Your task to perform on an android device: create a new album in the google photos Image 0: 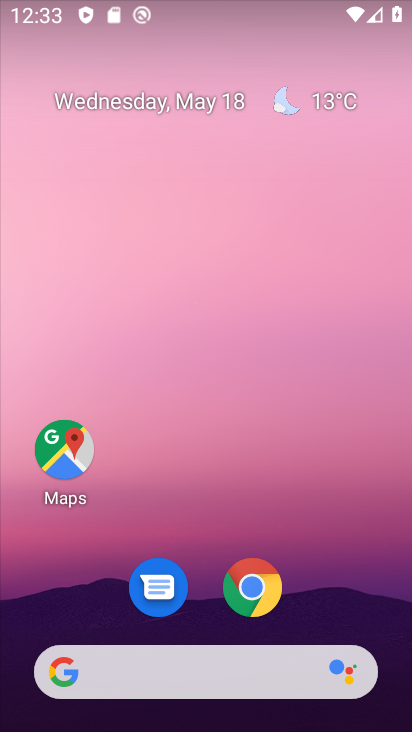
Step 0: drag from (220, 610) to (289, 42)
Your task to perform on an android device: create a new album in the google photos Image 1: 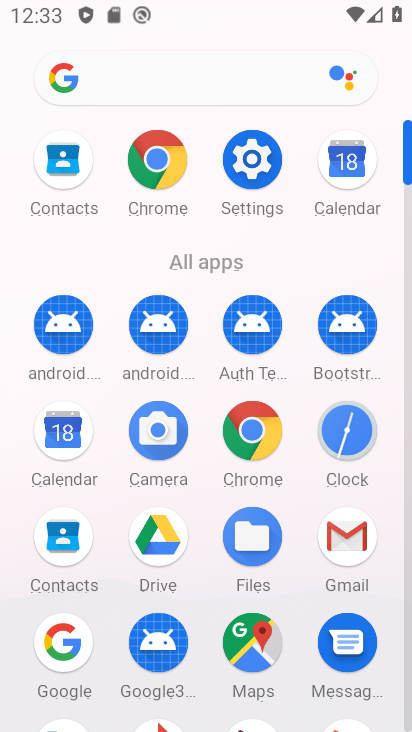
Step 1: drag from (224, 628) to (315, 178)
Your task to perform on an android device: create a new album in the google photos Image 2: 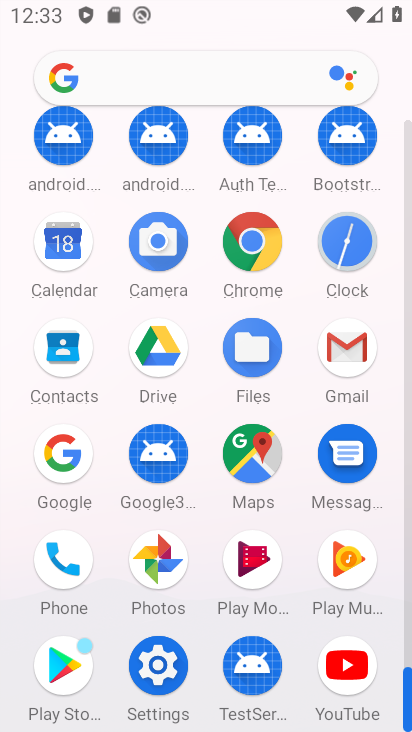
Step 2: click (145, 562)
Your task to perform on an android device: create a new album in the google photos Image 3: 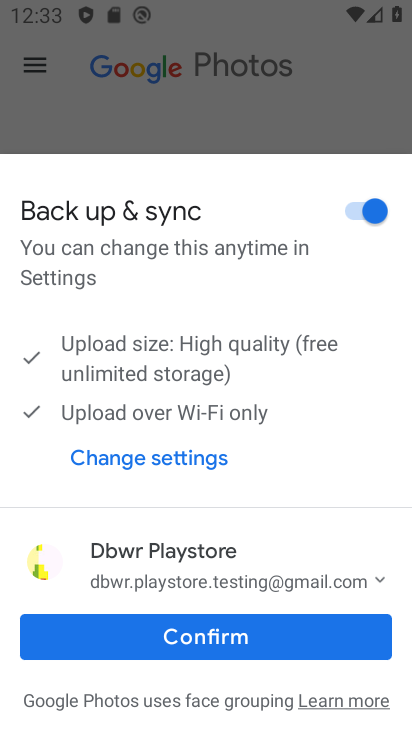
Step 3: click (167, 632)
Your task to perform on an android device: create a new album in the google photos Image 4: 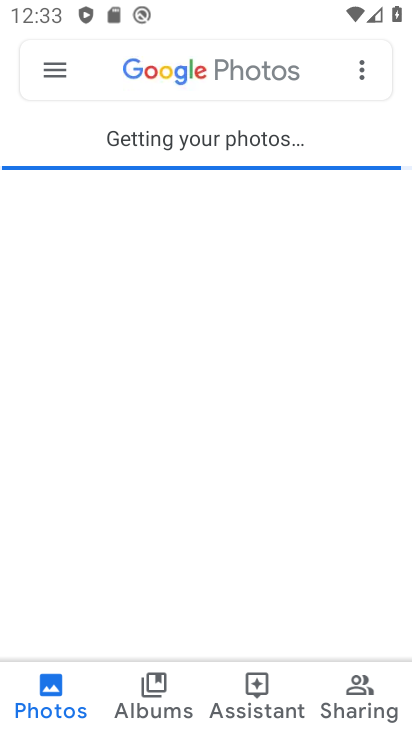
Step 4: drag from (360, 65) to (323, 88)
Your task to perform on an android device: create a new album in the google photos Image 5: 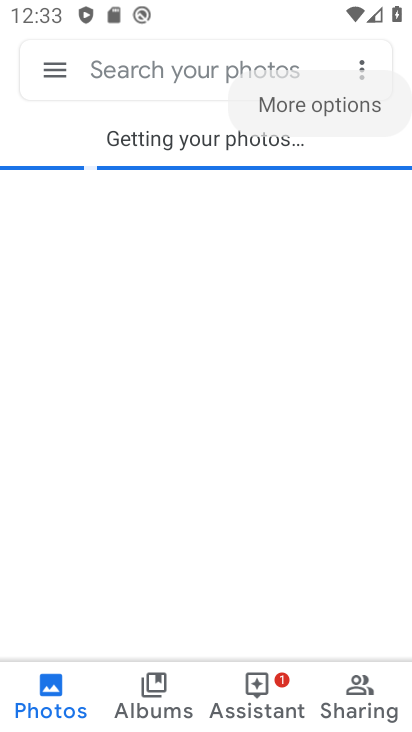
Step 5: click (308, 317)
Your task to perform on an android device: create a new album in the google photos Image 6: 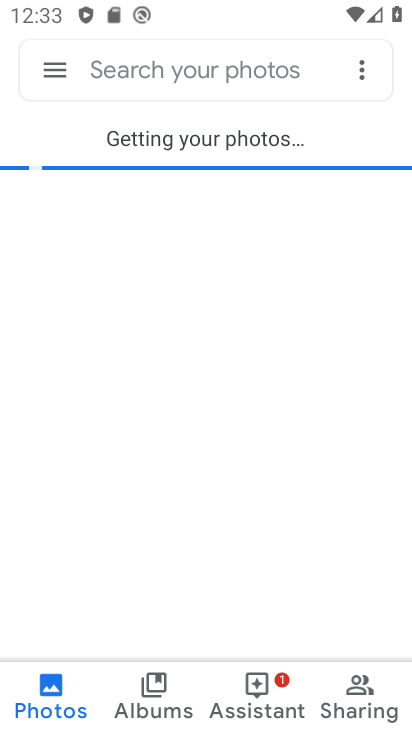
Step 6: click (352, 65)
Your task to perform on an android device: create a new album in the google photos Image 7: 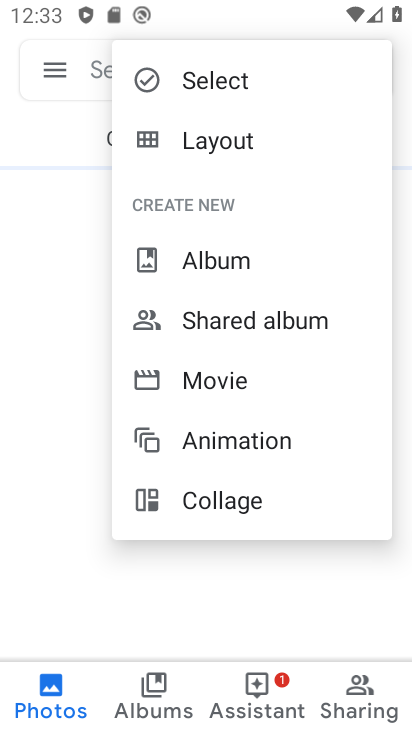
Step 7: click (202, 280)
Your task to perform on an android device: create a new album in the google photos Image 8: 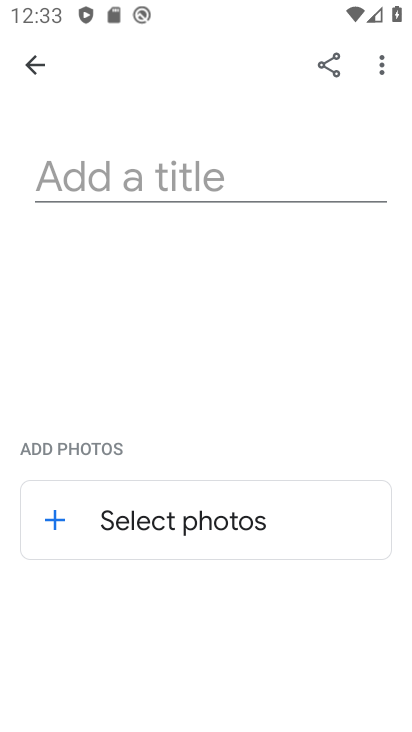
Step 8: click (134, 182)
Your task to perform on an android device: create a new album in the google photos Image 9: 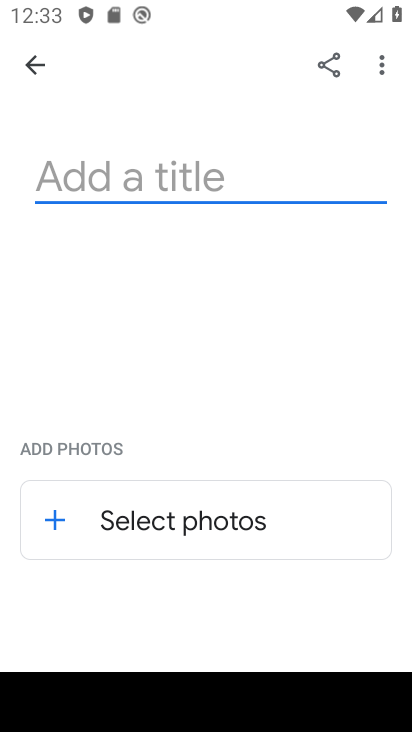
Step 9: type "fvffb"
Your task to perform on an android device: create a new album in the google photos Image 10: 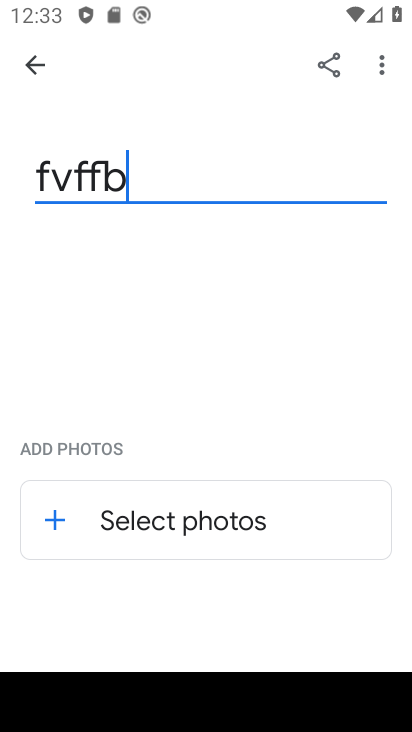
Step 10: click (180, 518)
Your task to perform on an android device: create a new album in the google photos Image 11: 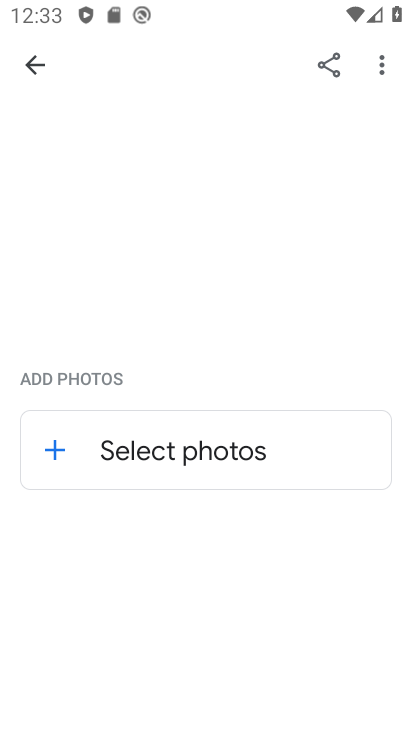
Step 11: click (155, 436)
Your task to perform on an android device: create a new album in the google photos Image 12: 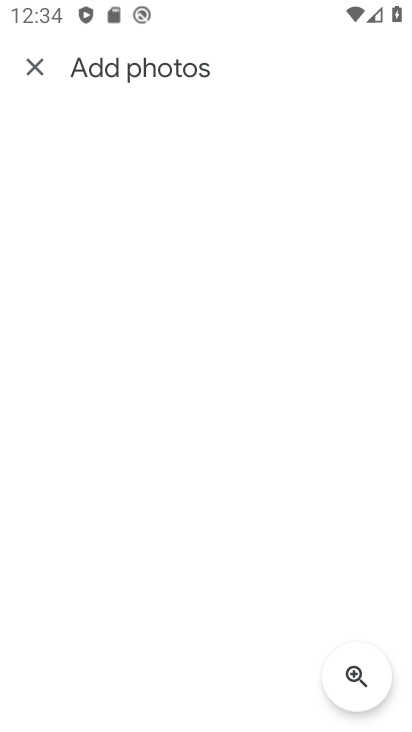
Step 12: drag from (100, 135) to (299, 85)
Your task to perform on an android device: create a new album in the google photos Image 13: 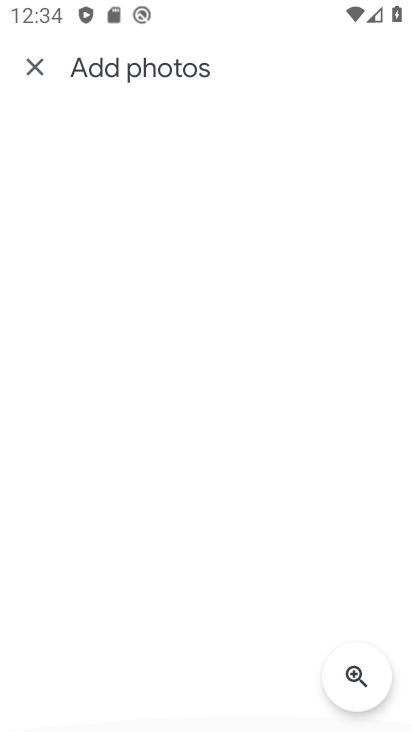
Step 13: click (48, 65)
Your task to perform on an android device: create a new album in the google photos Image 14: 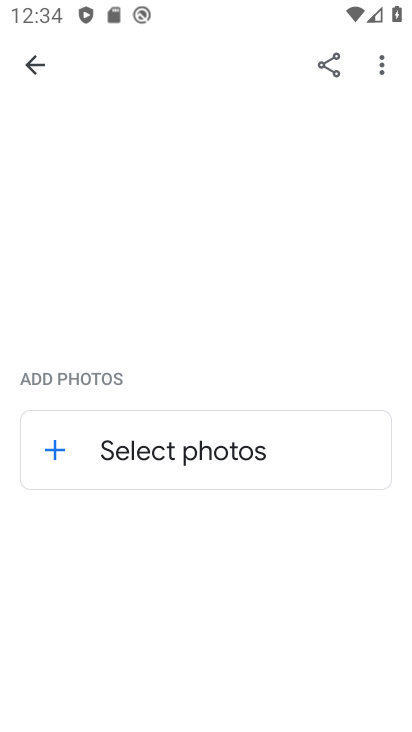
Step 14: click (152, 460)
Your task to perform on an android device: create a new album in the google photos Image 15: 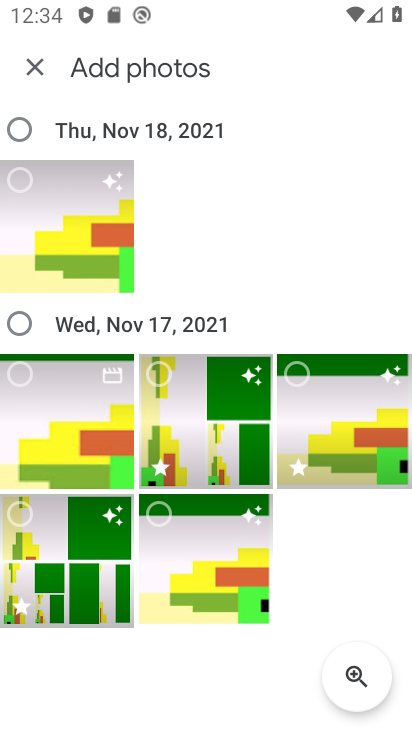
Step 15: click (26, 129)
Your task to perform on an android device: create a new album in the google photos Image 16: 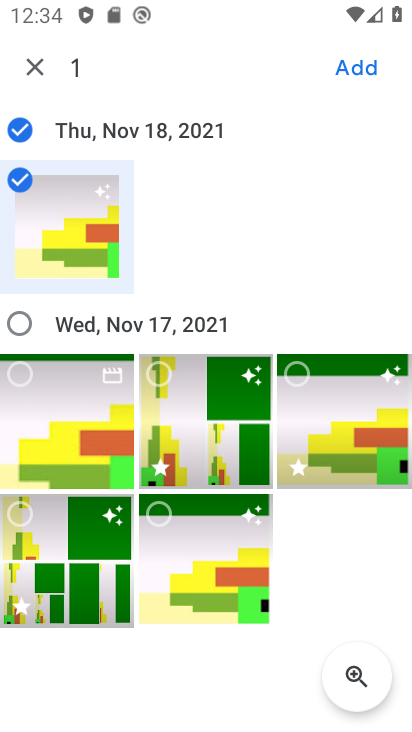
Step 16: click (16, 325)
Your task to perform on an android device: create a new album in the google photos Image 17: 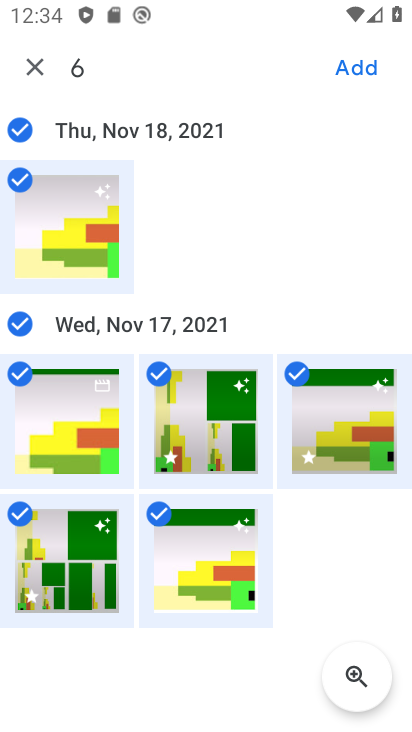
Step 17: click (354, 57)
Your task to perform on an android device: create a new album in the google photos Image 18: 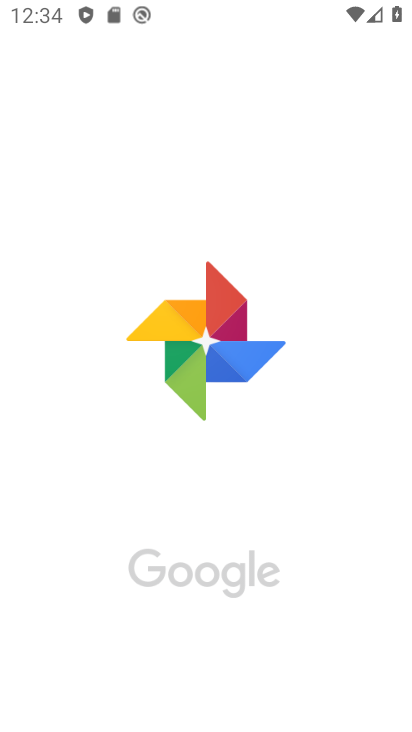
Step 18: task complete